Your task to perform on an android device: delete browsing data in the chrome app Image 0: 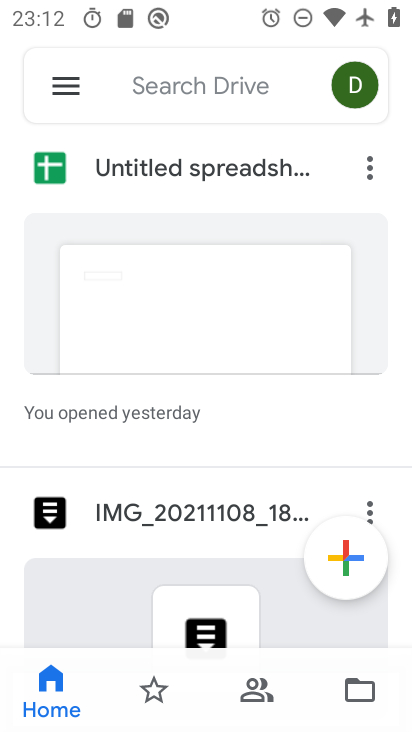
Step 0: press home button
Your task to perform on an android device: delete browsing data in the chrome app Image 1: 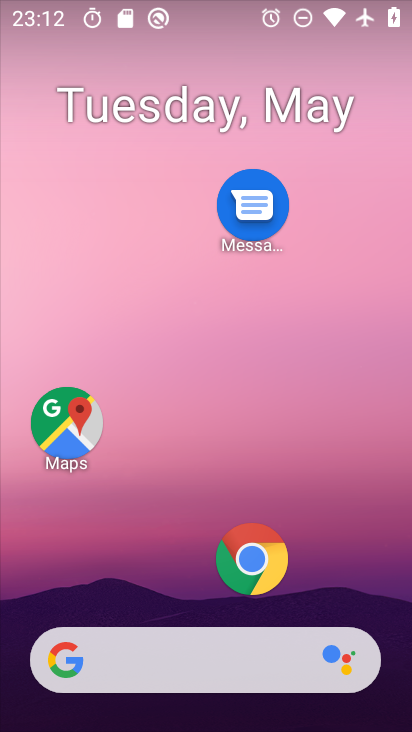
Step 1: click (238, 576)
Your task to perform on an android device: delete browsing data in the chrome app Image 2: 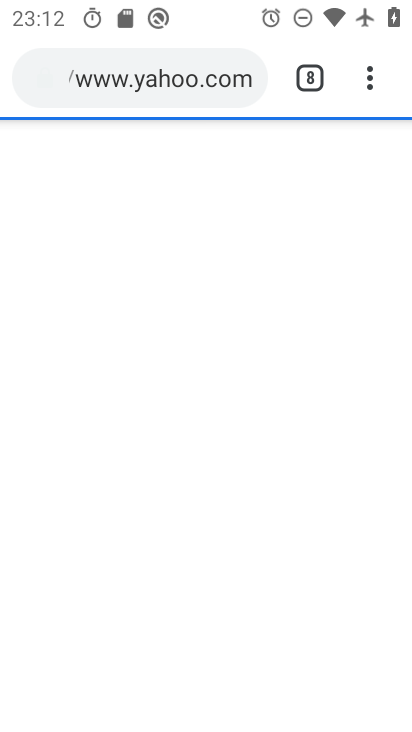
Step 2: drag from (365, 64) to (71, 437)
Your task to perform on an android device: delete browsing data in the chrome app Image 3: 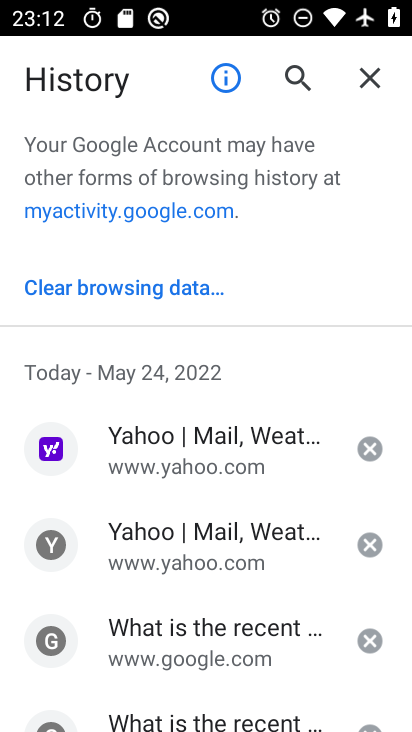
Step 3: click (149, 282)
Your task to perform on an android device: delete browsing data in the chrome app Image 4: 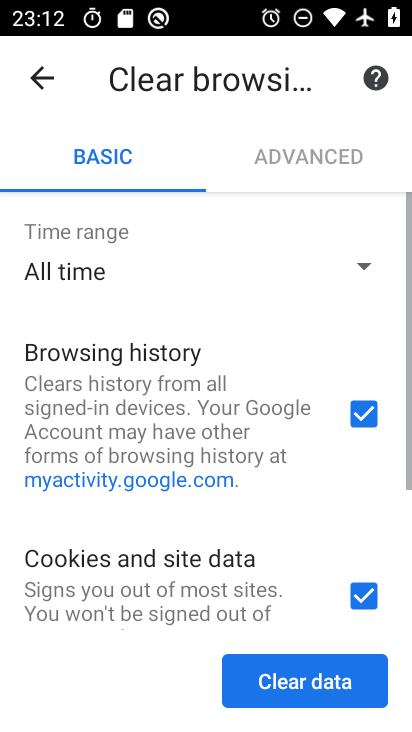
Step 4: click (304, 662)
Your task to perform on an android device: delete browsing data in the chrome app Image 5: 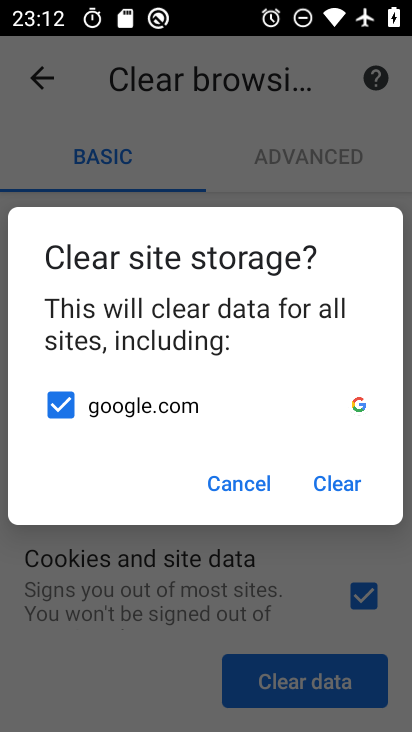
Step 5: click (321, 480)
Your task to perform on an android device: delete browsing data in the chrome app Image 6: 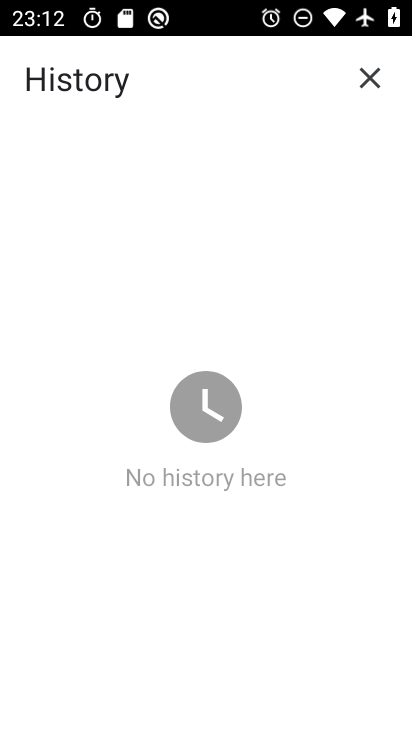
Step 6: task complete